Your task to perform on an android device: Open Wikipedia Image 0: 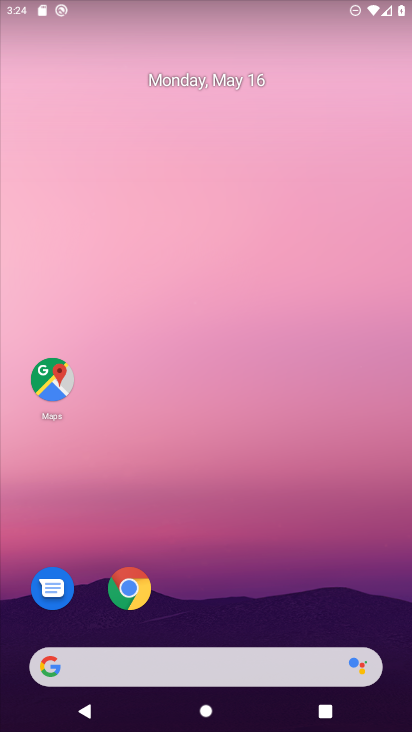
Step 0: click (142, 595)
Your task to perform on an android device: Open Wikipedia Image 1: 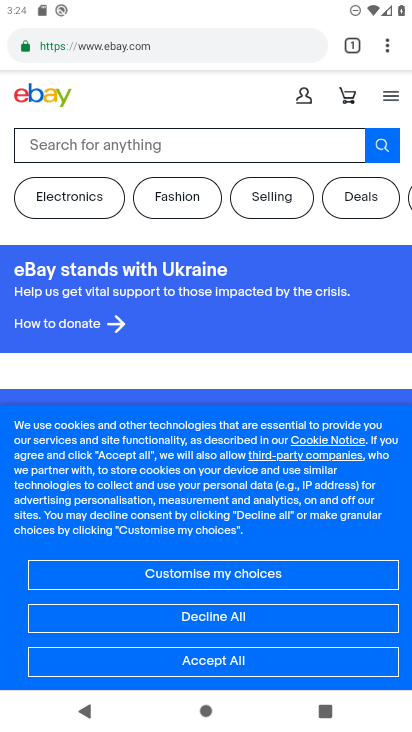
Step 1: click (110, 53)
Your task to perform on an android device: Open Wikipedia Image 2: 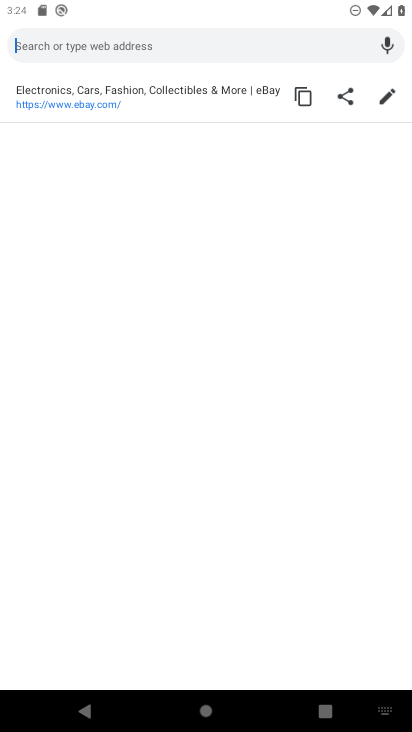
Step 2: type "wikipedia"
Your task to perform on an android device: Open Wikipedia Image 3: 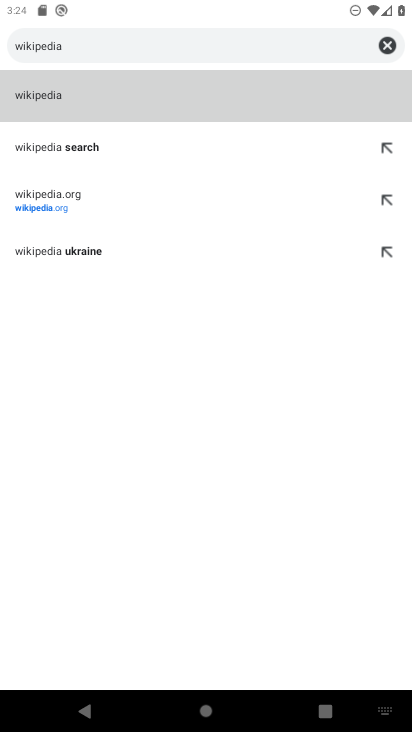
Step 3: click (20, 91)
Your task to perform on an android device: Open Wikipedia Image 4: 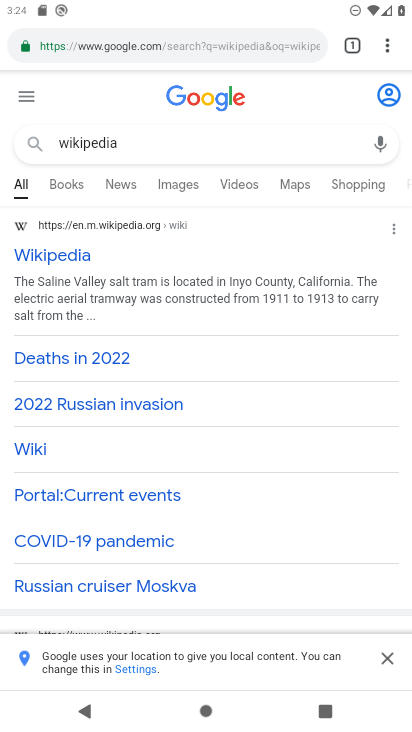
Step 4: click (42, 255)
Your task to perform on an android device: Open Wikipedia Image 5: 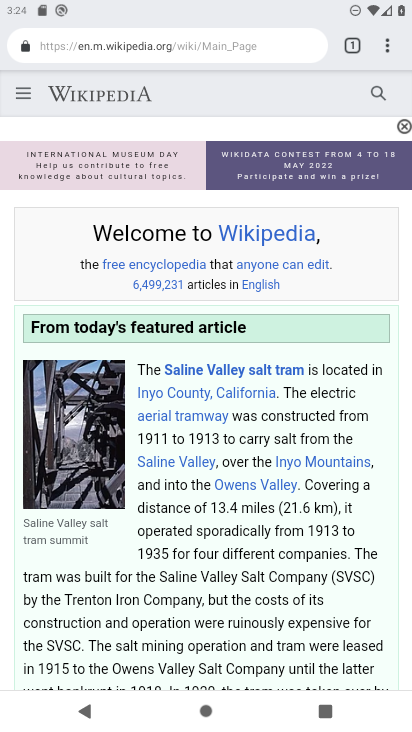
Step 5: task complete